Your task to perform on an android device: check android version Image 0: 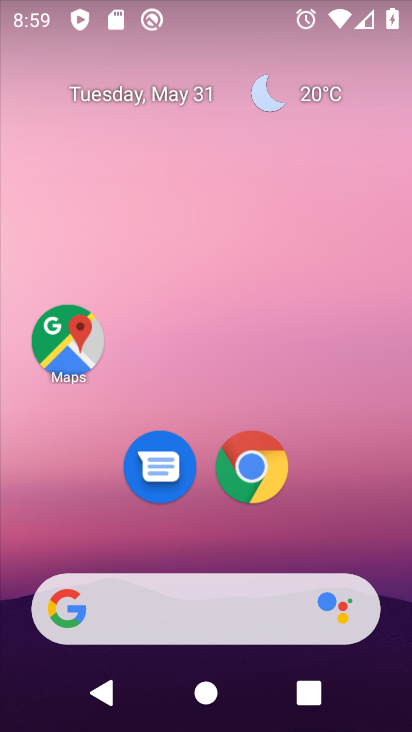
Step 0: drag from (216, 527) to (251, 88)
Your task to perform on an android device: check android version Image 1: 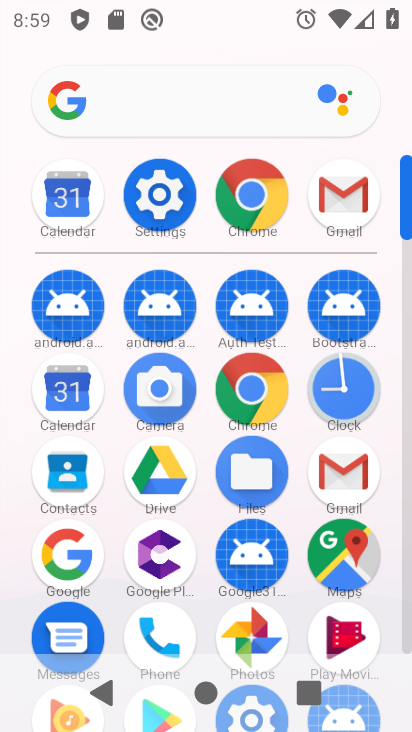
Step 1: click (145, 206)
Your task to perform on an android device: check android version Image 2: 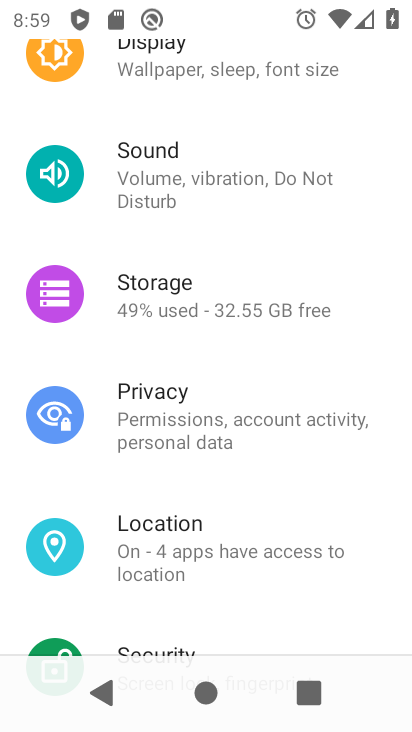
Step 2: drag from (250, 615) to (249, 3)
Your task to perform on an android device: check android version Image 3: 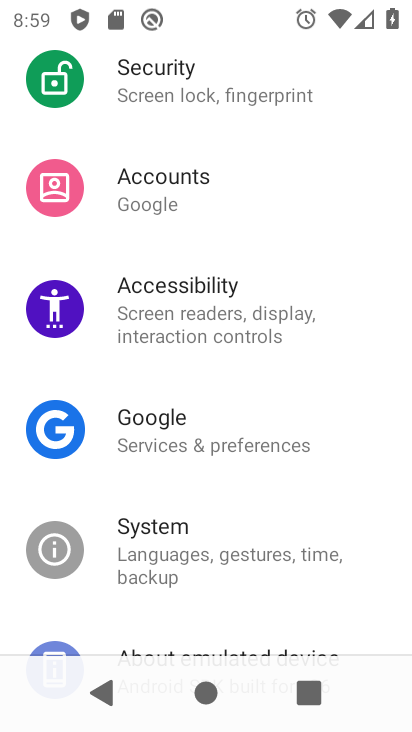
Step 3: drag from (167, 514) to (306, 72)
Your task to perform on an android device: check android version Image 4: 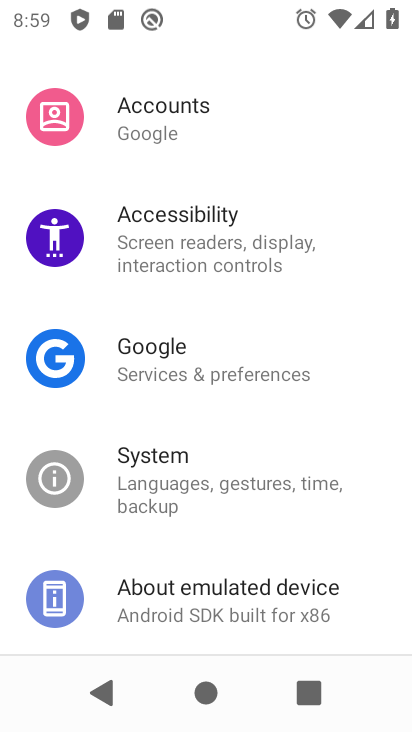
Step 4: click (210, 607)
Your task to perform on an android device: check android version Image 5: 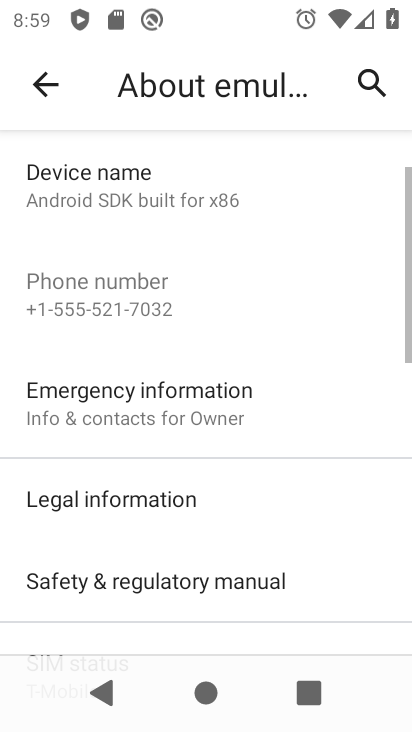
Step 5: drag from (204, 539) to (209, 300)
Your task to perform on an android device: check android version Image 6: 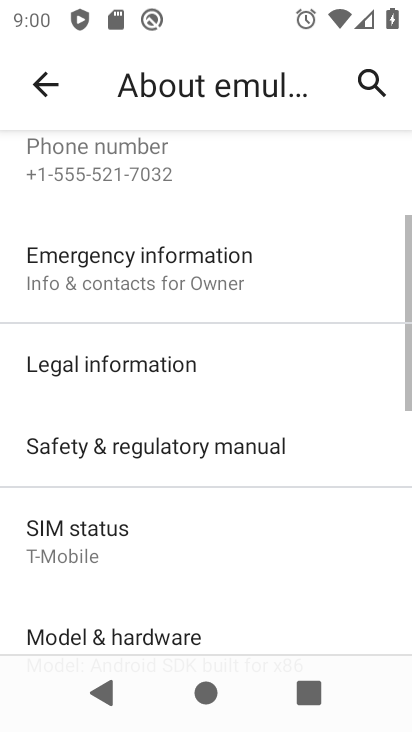
Step 6: drag from (220, 571) to (301, 67)
Your task to perform on an android device: check android version Image 7: 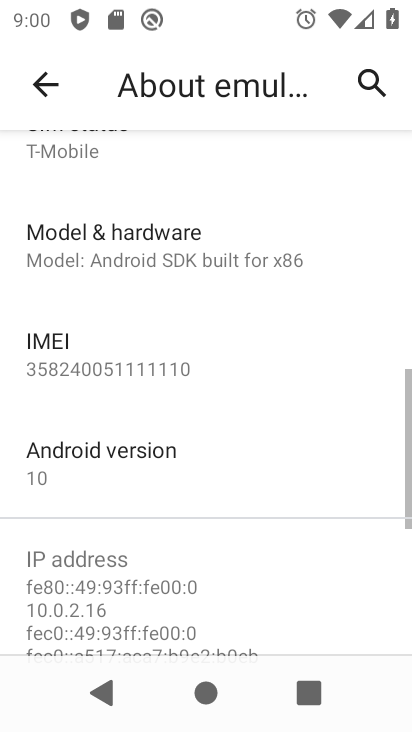
Step 7: drag from (164, 490) to (202, 338)
Your task to perform on an android device: check android version Image 8: 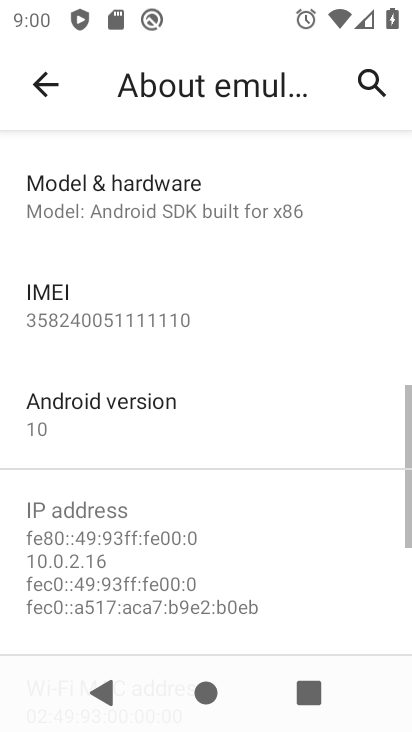
Step 8: click (162, 403)
Your task to perform on an android device: check android version Image 9: 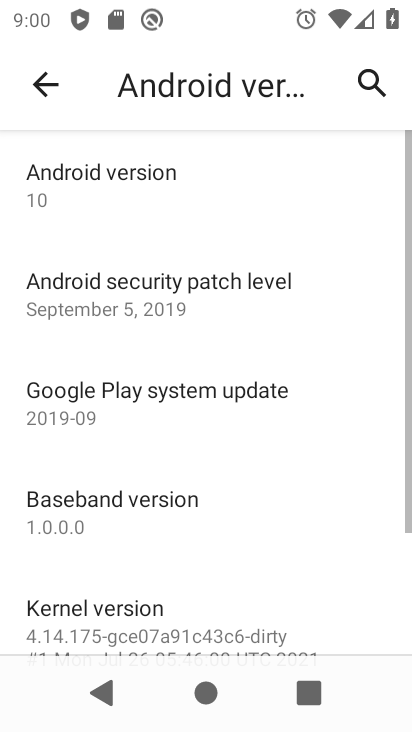
Step 9: task complete